Your task to perform on an android device: Go to network settings Image 0: 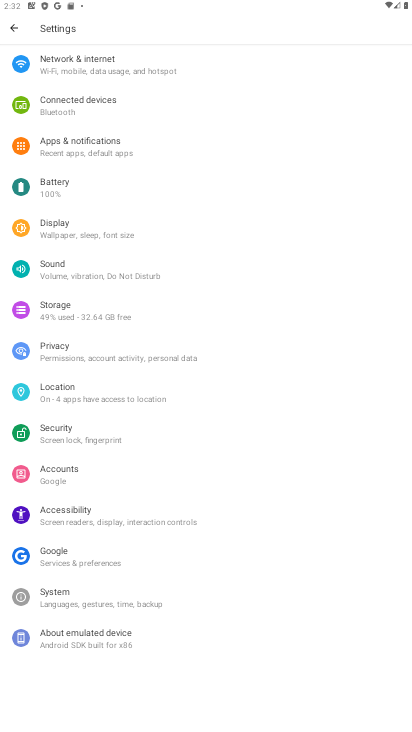
Step 0: press home button
Your task to perform on an android device: Go to network settings Image 1: 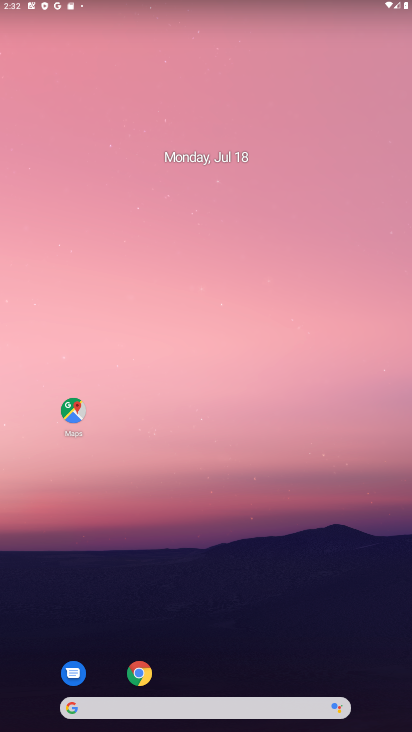
Step 1: drag from (201, 703) to (214, 231)
Your task to perform on an android device: Go to network settings Image 2: 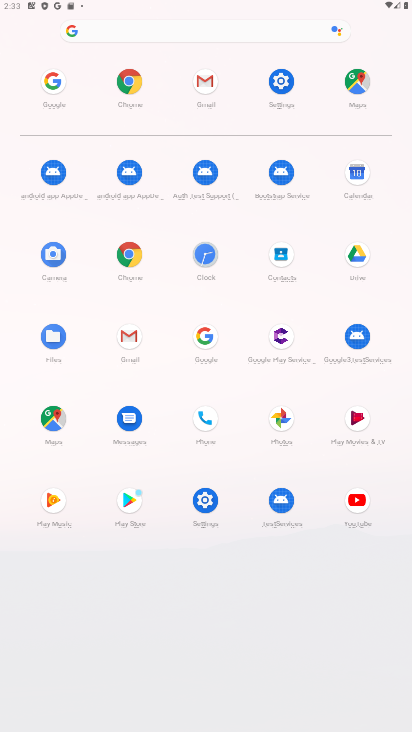
Step 2: click (282, 84)
Your task to perform on an android device: Go to network settings Image 3: 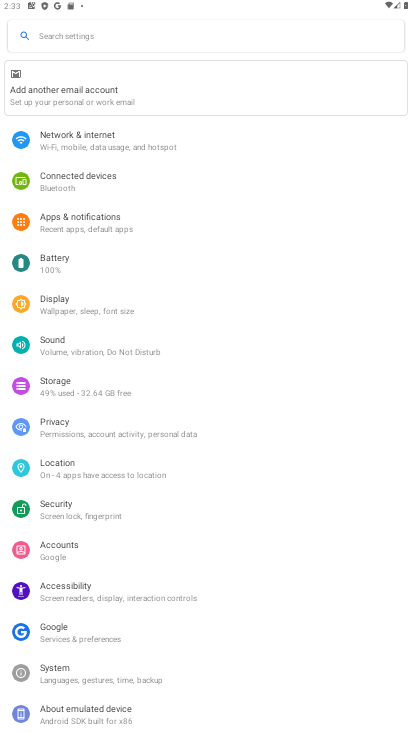
Step 3: click (117, 146)
Your task to perform on an android device: Go to network settings Image 4: 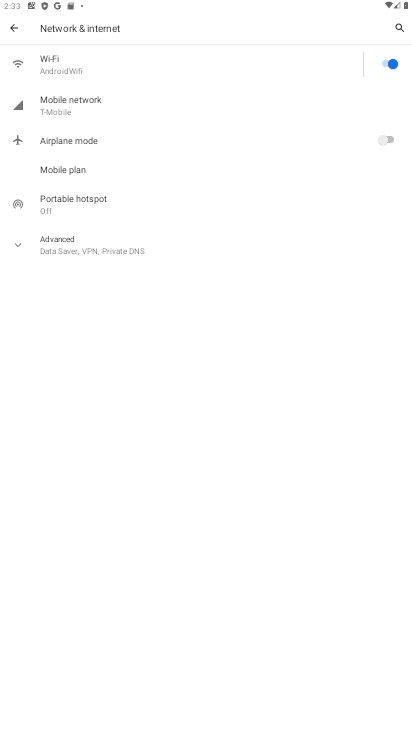
Step 4: task complete